Your task to perform on an android device: Go to Google maps Image 0: 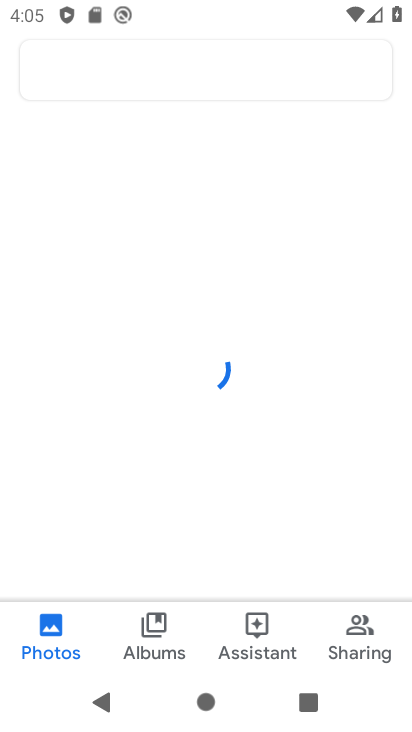
Step 0: press home button
Your task to perform on an android device: Go to Google maps Image 1: 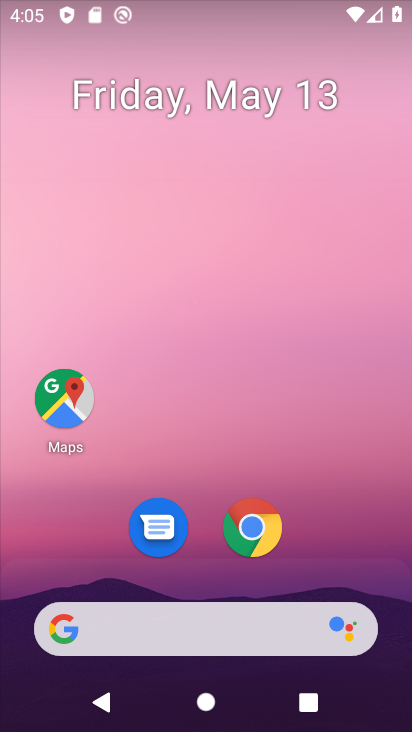
Step 1: click (68, 403)
Your task to perform on an android device: Go to Google maps Image 2: 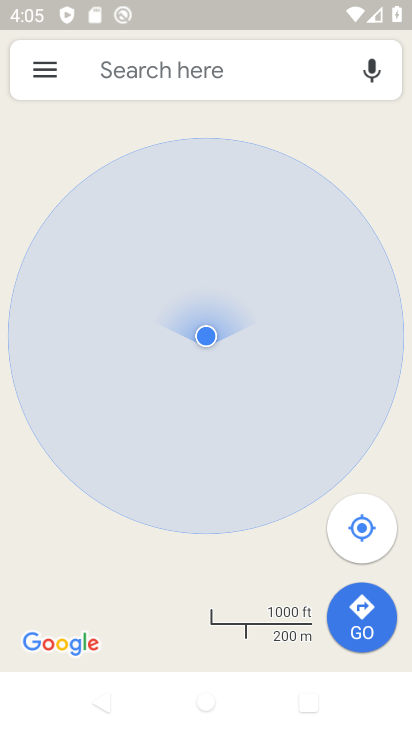
Step 2: task complete